Your task to perform on an android device: turn off notifications in google photos Image 0: 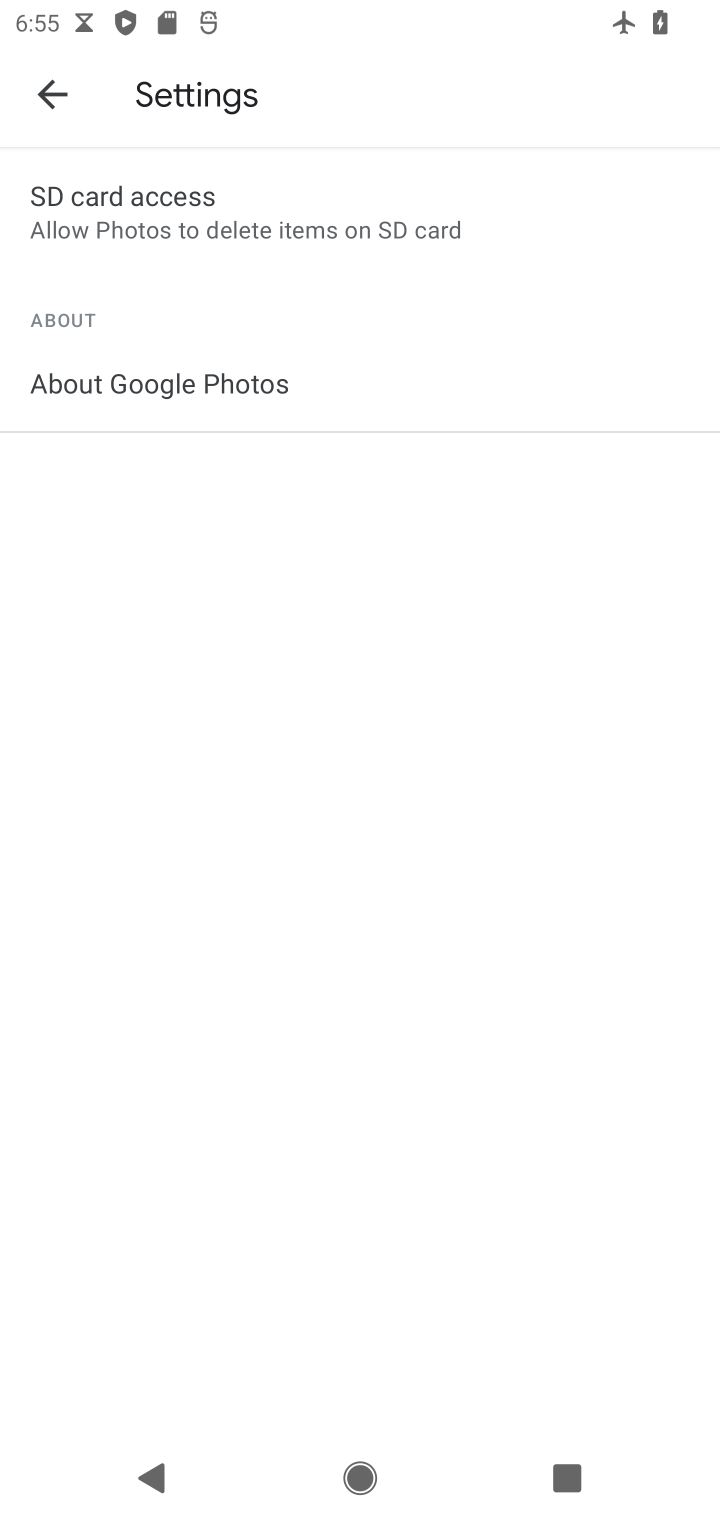
Step 0: press home button
Your task to perform on an android device: turn off notifications in google photos Image 1: 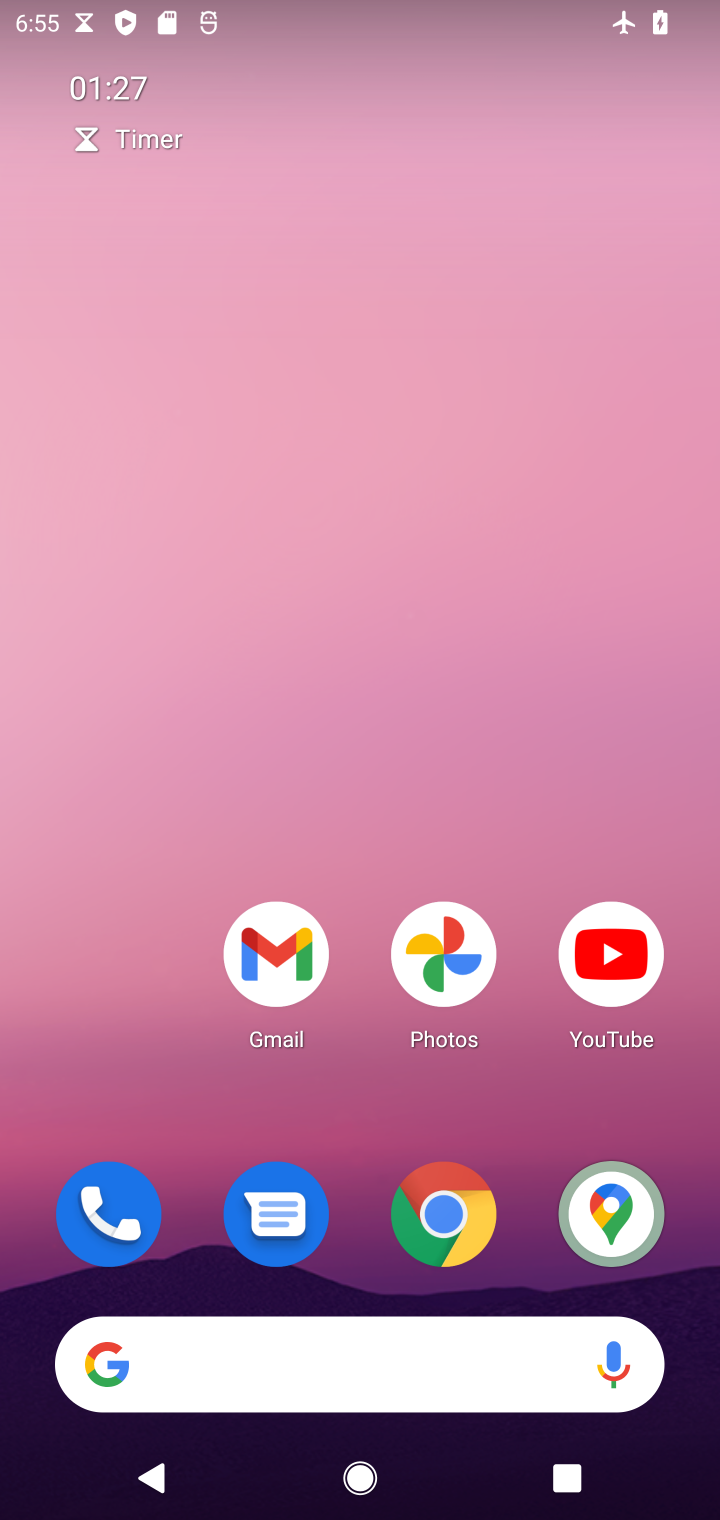
Step 1: click (462, 980)
Your task to perform on an android device: turn off notifications in google photos Image 2: 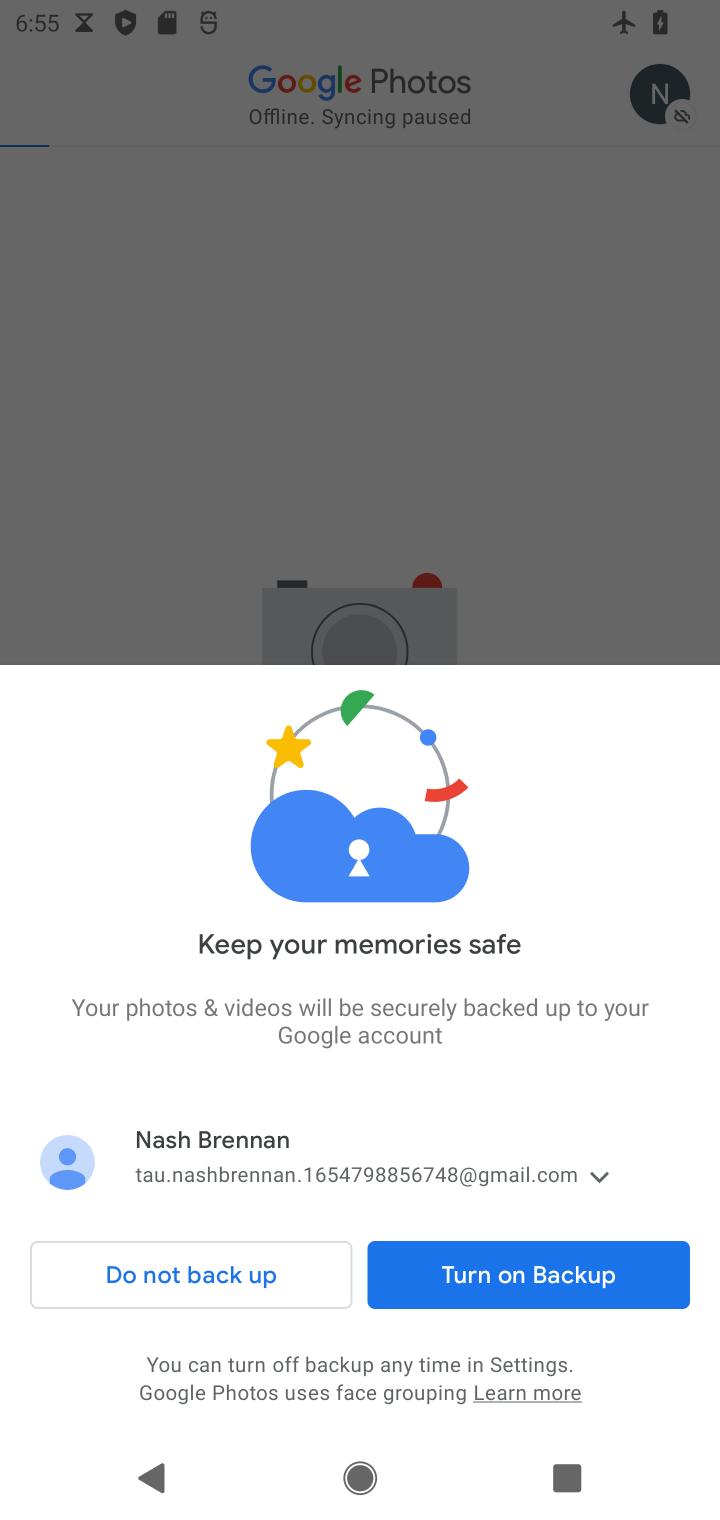
Step 2: click (246, 1270)
Your task to perform on an android device: turn off notifications in google photos Image 3: 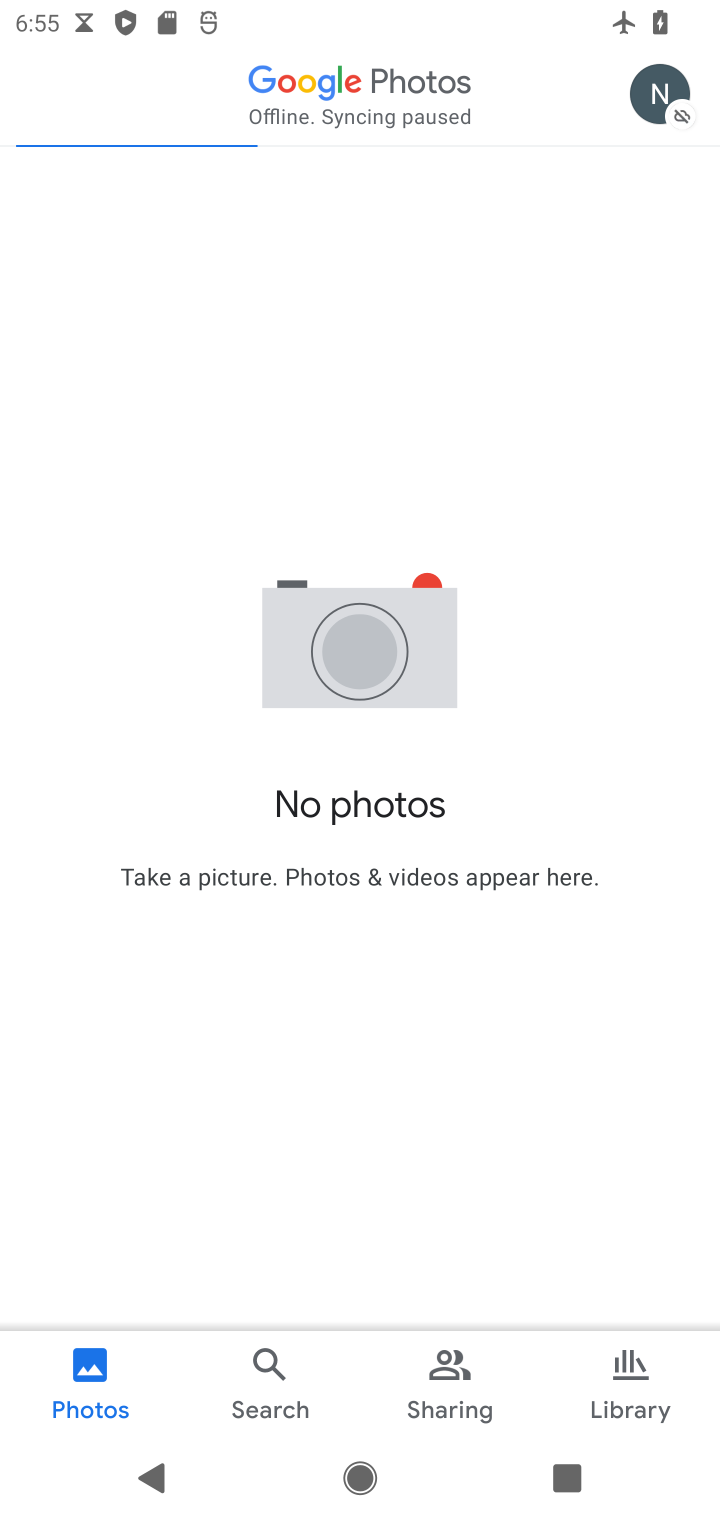
Step 3: click (654, 103)
Your task to perform on an android device: turn off notifications in google photos Image 4: 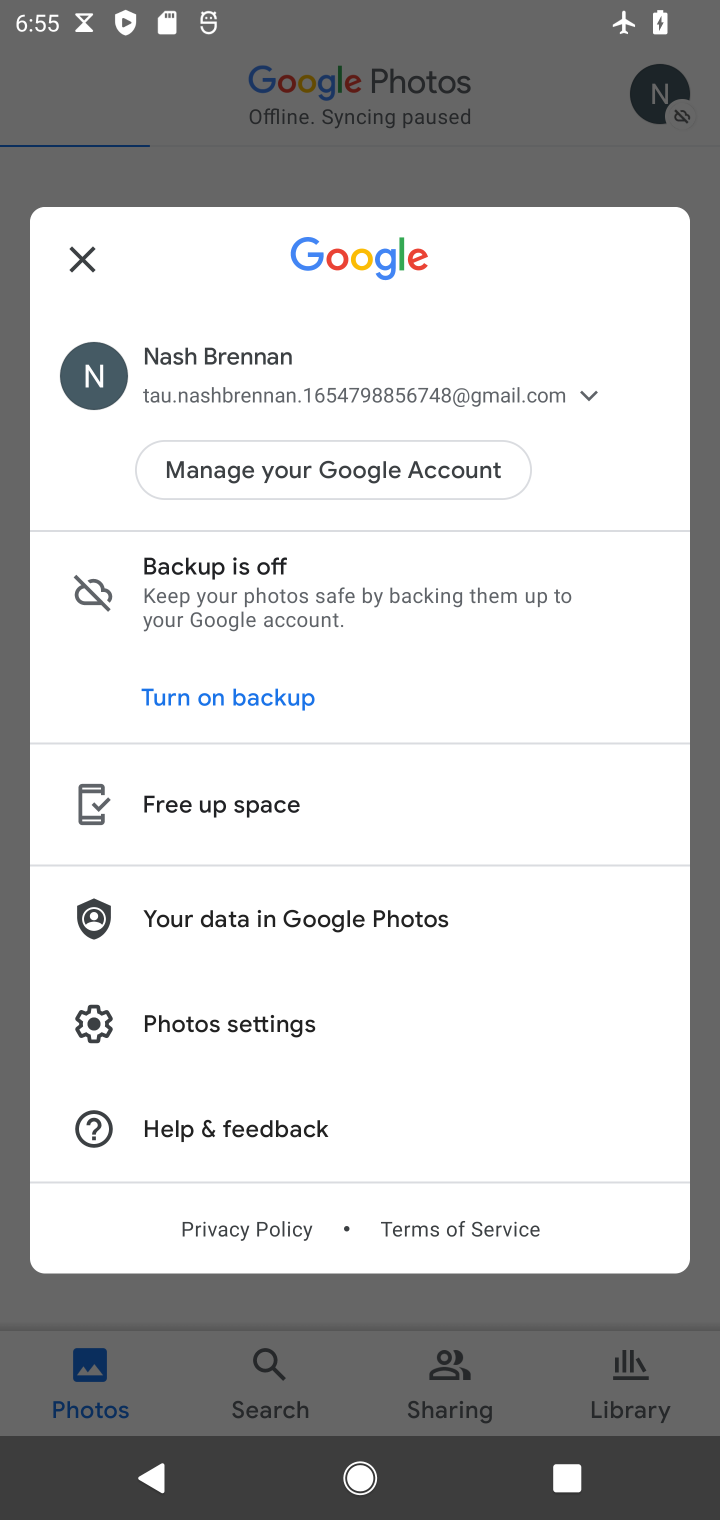
Step 4: click (268, 1031)
Your task to perform on an android device: turn off notifications in google photos Image 5: 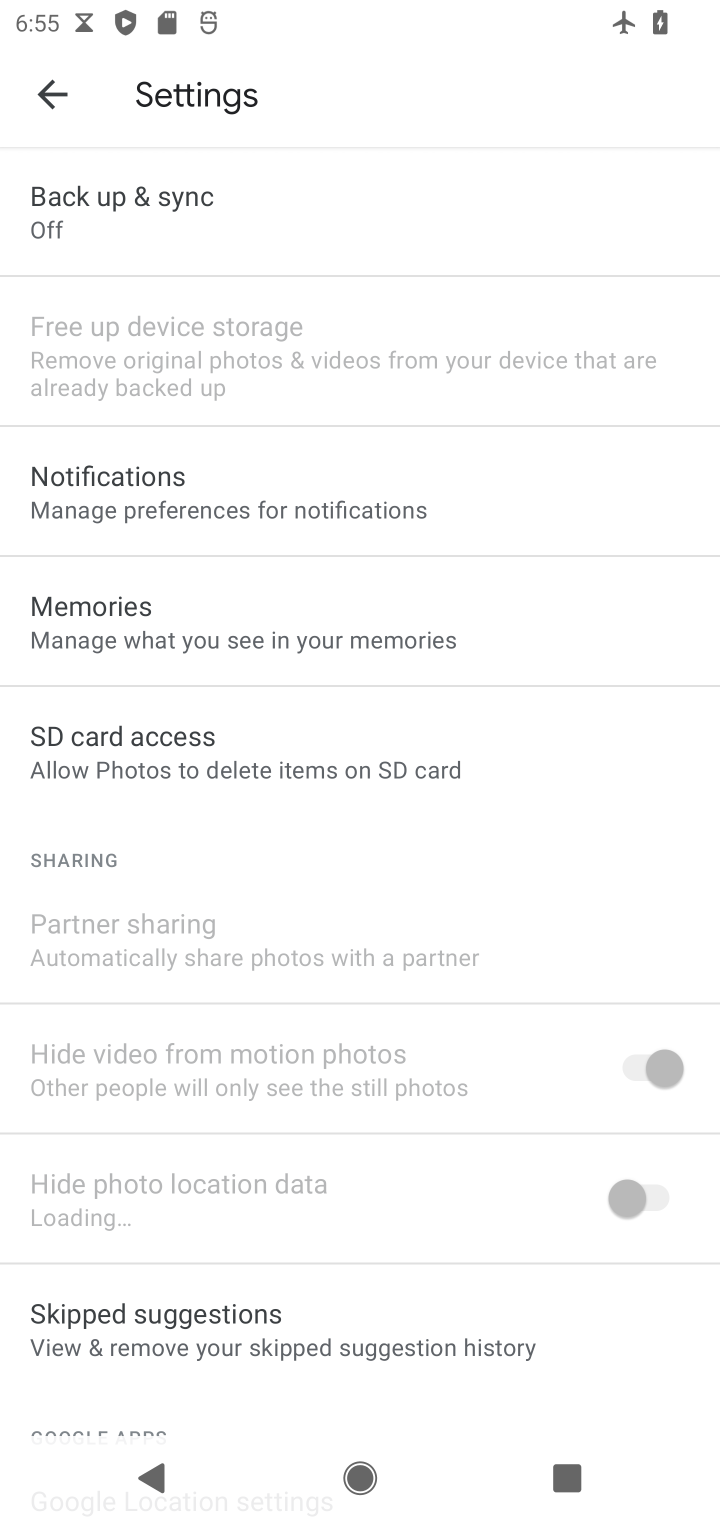
Step 5: click (122, 497)
Your task to perform on an android device: turn off notifications in google photos Image 6: 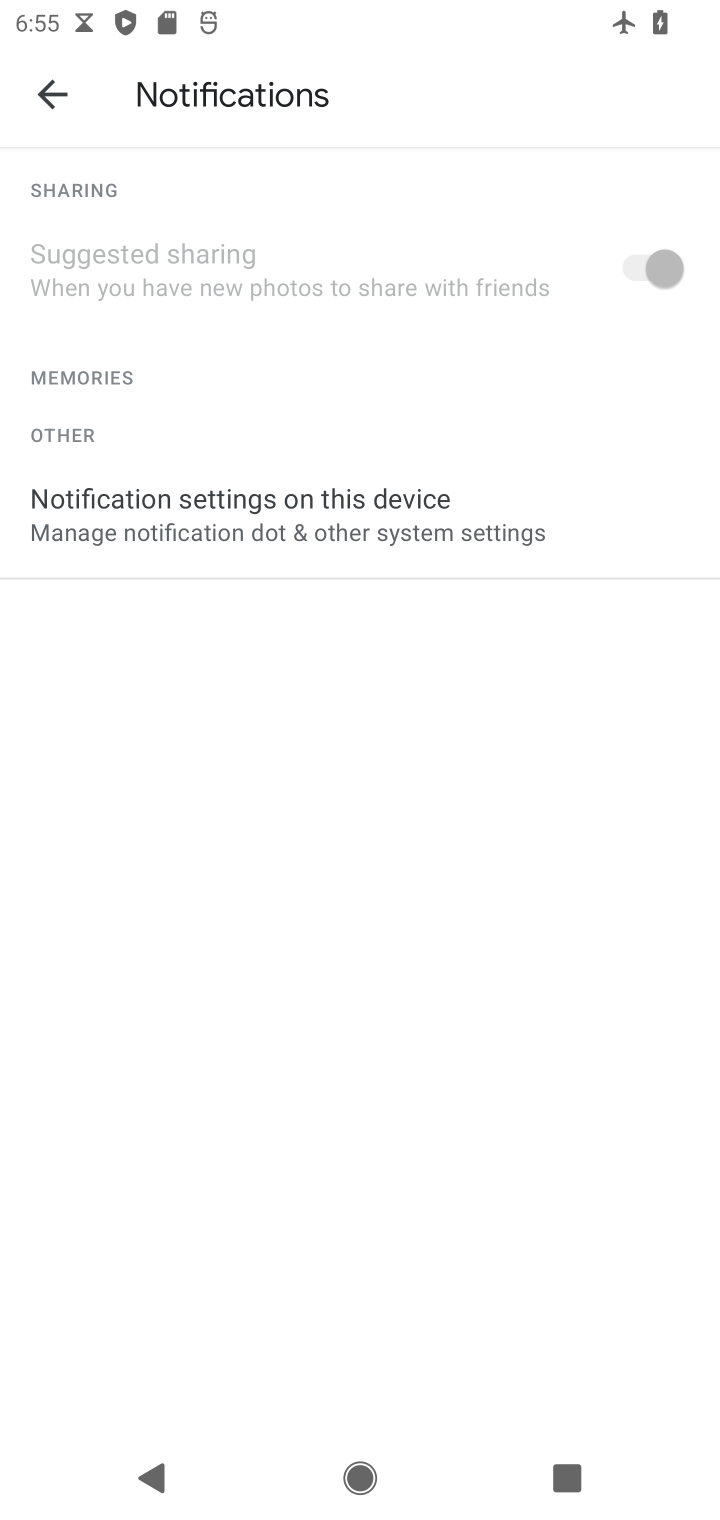
Step 6: click (215, 516)
Your task to perform on an android device: turn off notifications in google photos Image 7: 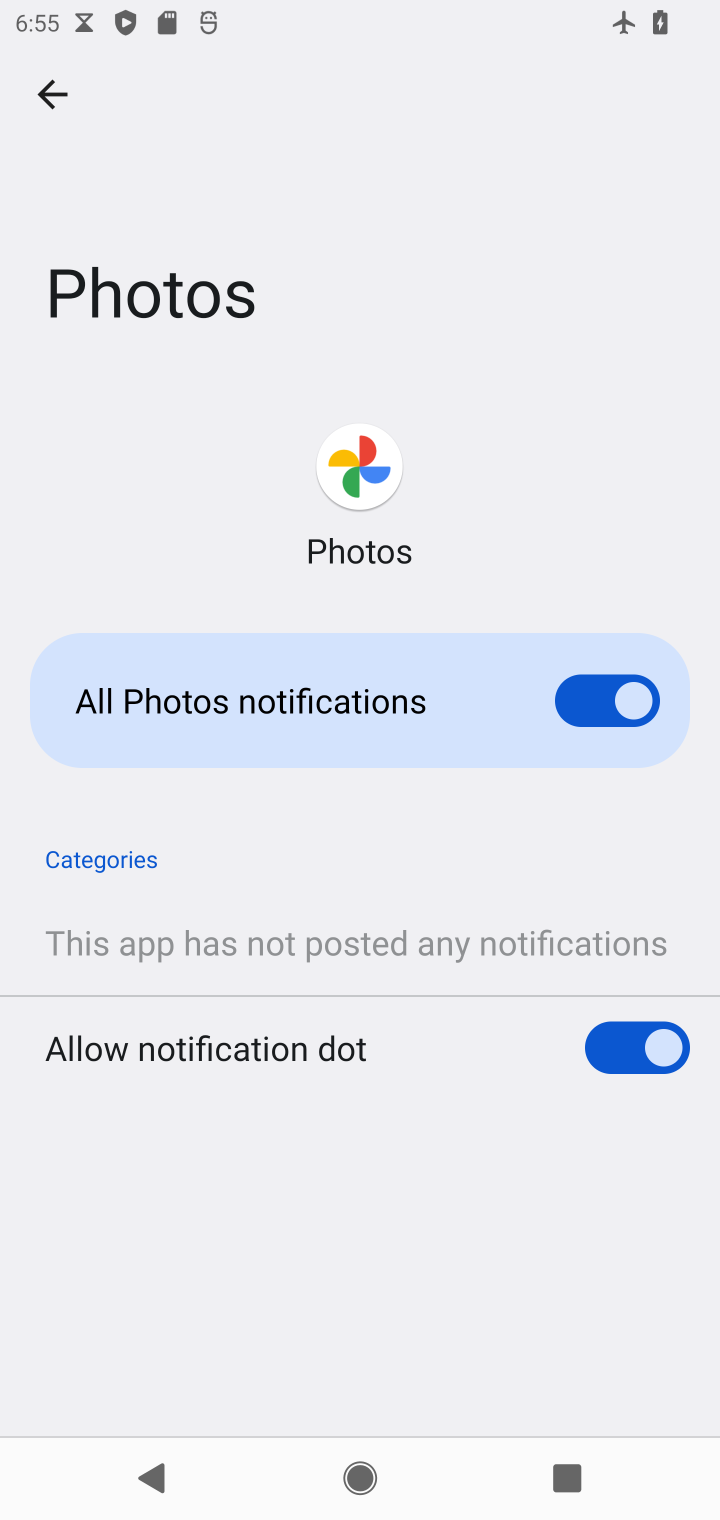
Step 7: click (505, 675)
Your task to perform on an android device: turn off notifications in google photos Image 8: 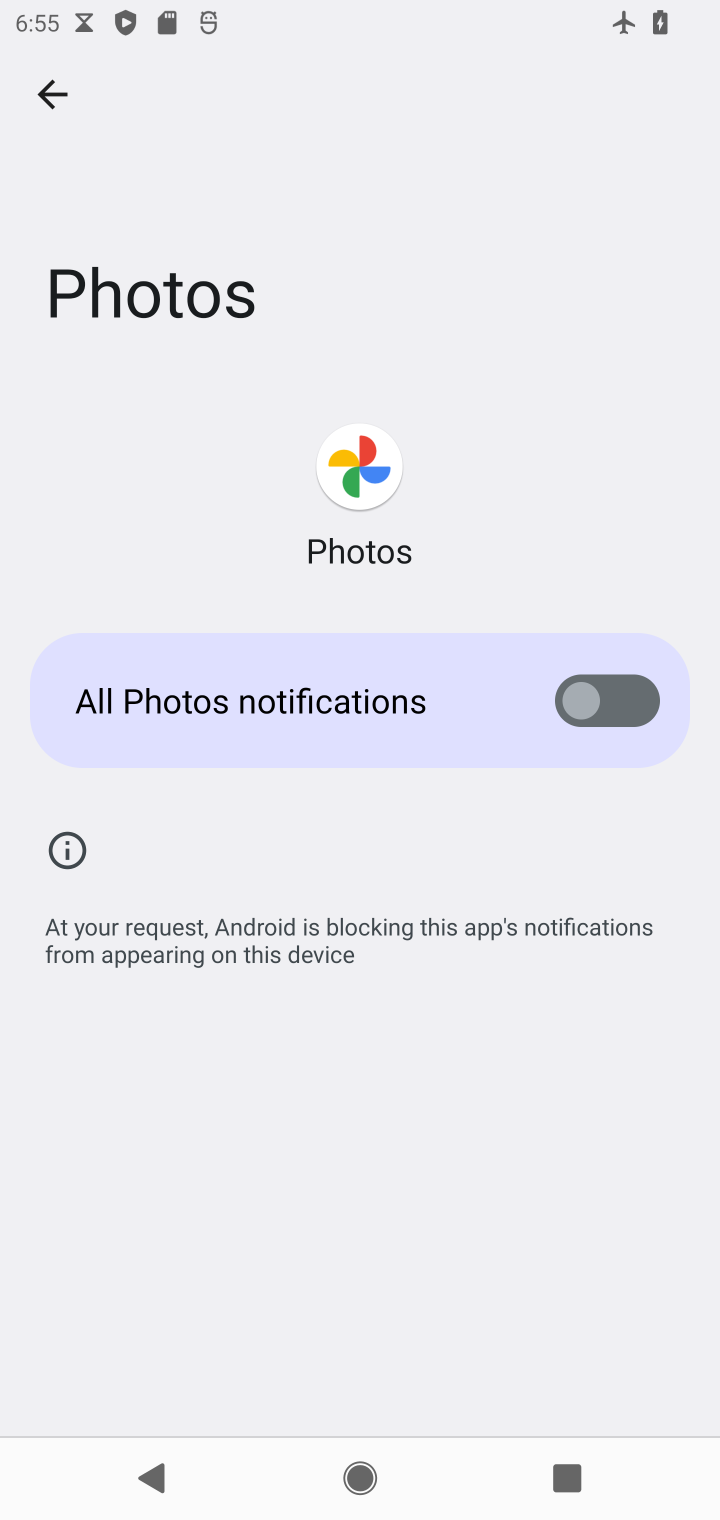
Step 8: task complete